Your task to perform on an android device: open app "PUBG MOBILE" Image 0: 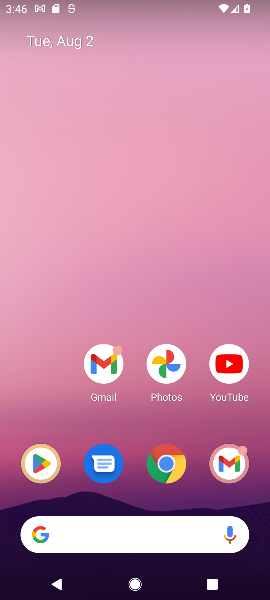
Step 0: press home button
Your task to perform on an android device: open app "PUBG MOBILE" Image 1: 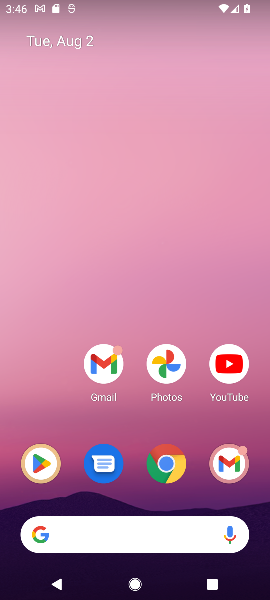
Step 1: click (37, 465)
Your task to perform on an android device: open app "PUBG MOBILE" Image 2: 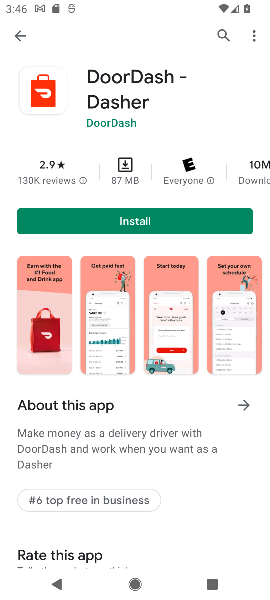
Step 2: click (221, 27)
Your task to perform on an android device: open app "PUBG MOBILE" Image 3: 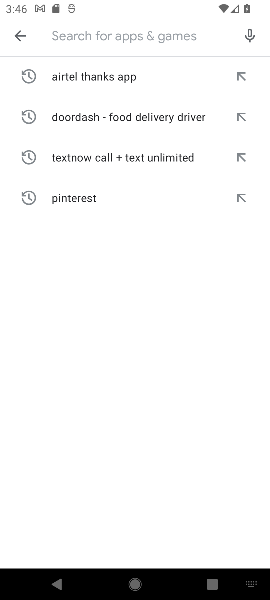
Step 3: type "PUBG MOBILE"
Your task to perform on an android device: open app "PUBG MOBILE" Image 4: 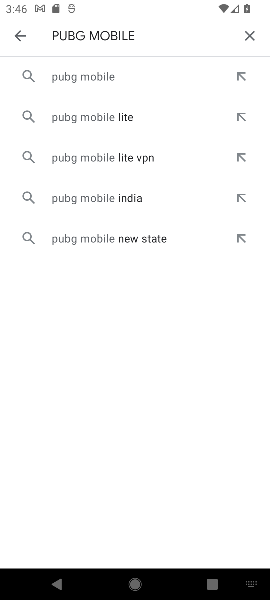
Step 4: click (56, 71)
Your task to perform on an android device: open app "PUBG MOBILE" Image 5: 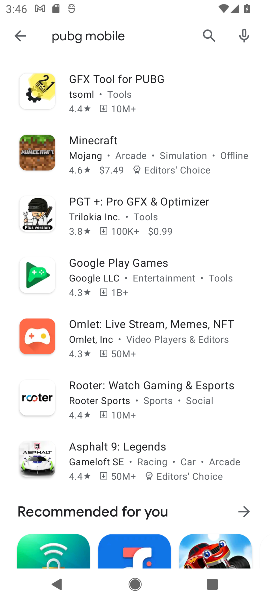
Step 5: task complete